Your task to perform on an android device: Check out the new nike air max 2020. Image 0: 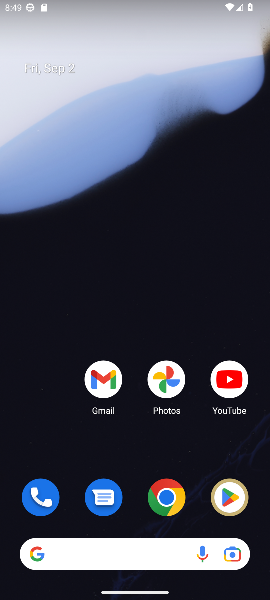
Step 0: drag from (32, 43) to (76, 158)
Your task to perform on an android device: Check out the new nike air max 2020. Image 1: 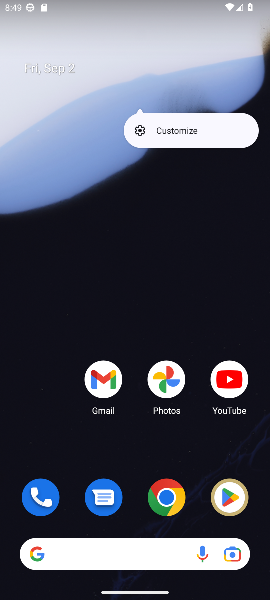
Step 1: drag from (133, 495) to (101, 4)
Your task to perform on an android device: Check out the new nike air max 2020. Image 2: 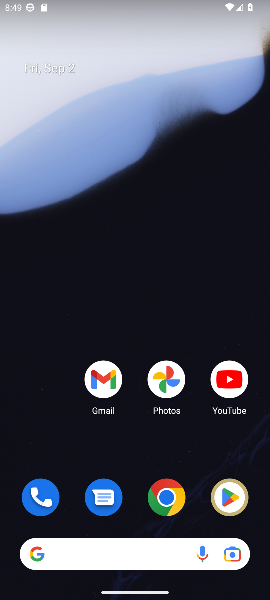
Step 2: drag from (110, 523) to (86, 1)
Your task to perform on an android device: Check out the new nike air max 2020. Image 3: 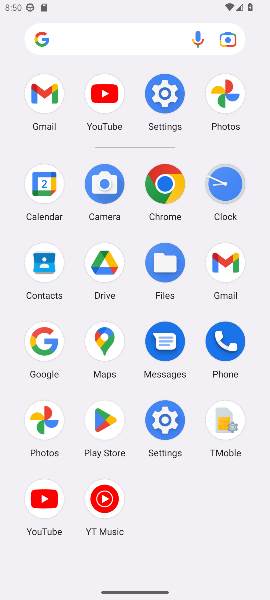
Step 3: click (36, 347)
Your task to perform on an android device: Check out the new nike air max 2020. Image 4: 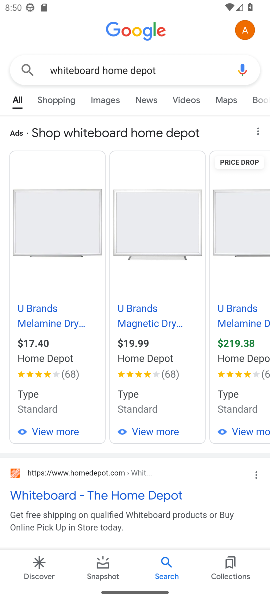
Step 4: click (111, 64)
Your task to perform on an android device: Check out the new nike air max 2020. Image 5: 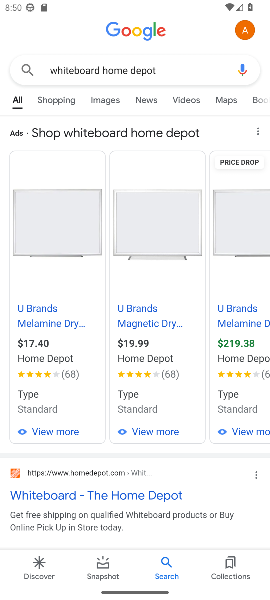
Step 5: click (111, 64)
Your task to perform on an android device: Check out the new nike air max 2020. Image 6: 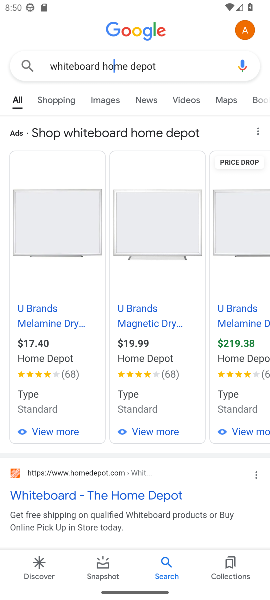
Step 6: click (111, 64)
Your task to perform on an android device: Check out the new nike air max 2020. Image 7: 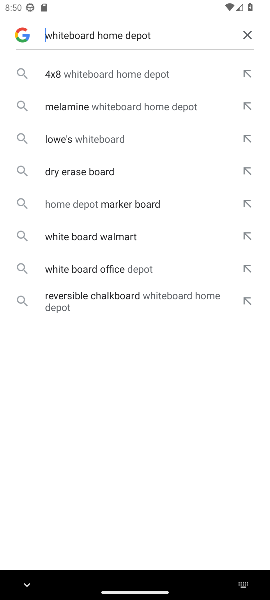
Step 7: click (250, 31)
Your task to perform on an android device: Check out the new nike air max 2020. Image 8: 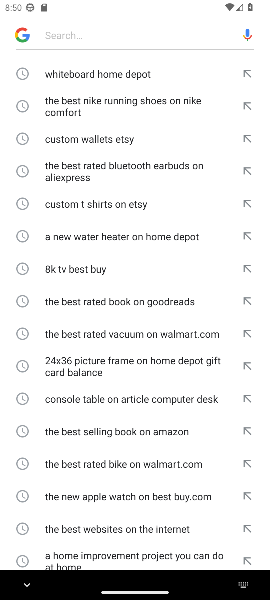
Step 8: type "the new nike air max 2020"
Your task to perform on an android device: Check out the new nike air max 2020. Image 9: 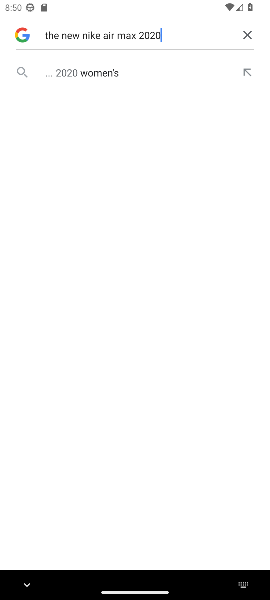
Step 9: click (83, 73)
Your task to perform on an android device: Check out the new nike air max 2020. Image 10: 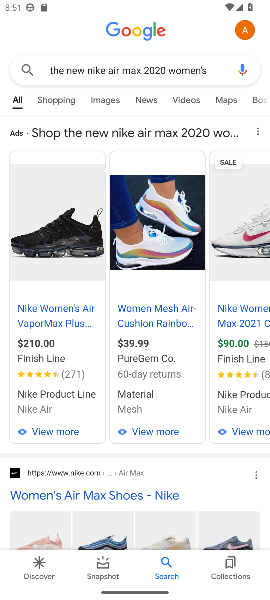
Step 10: task complete